Your task to perform on an android device: check google app version Image 0: 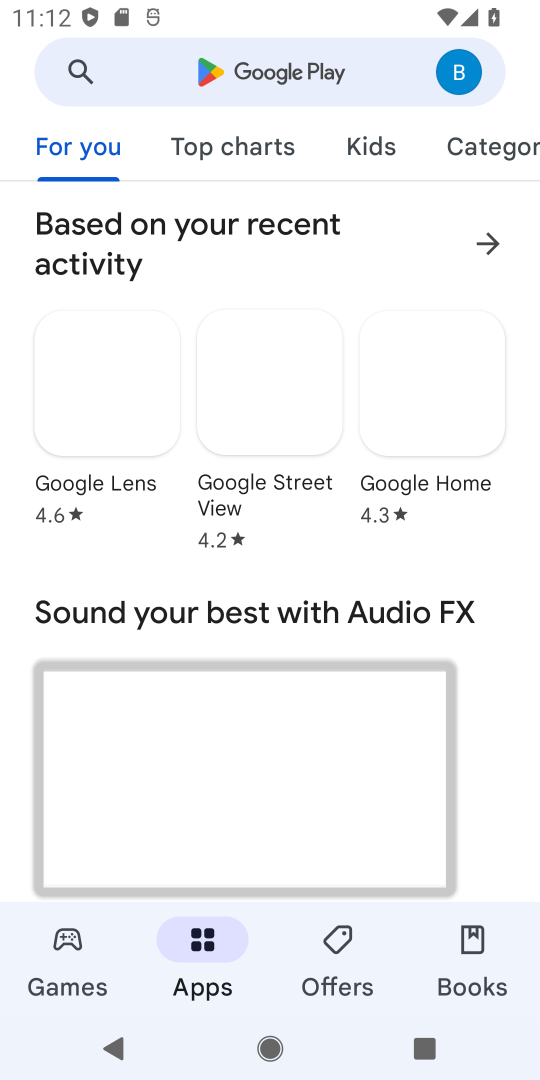
Step 0: press home button
Your task to perform on an android device: check google app version Image 1: 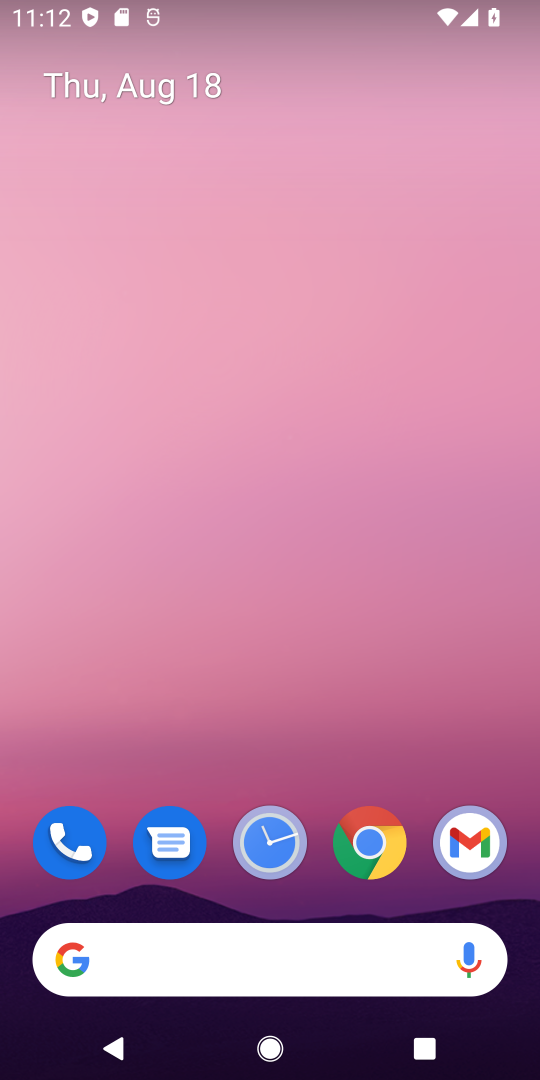
Step 1: drag from (201, 887) to (221, 147)
Your task to perform on an android device: check google app version Image 2: 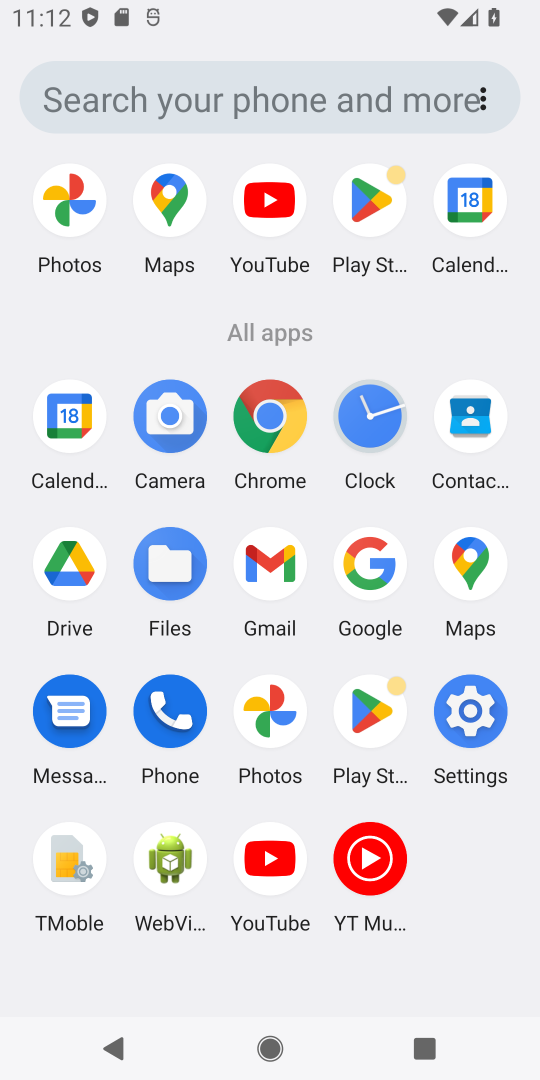
Step 2: click (377, 596)
Your task to perform on an android device: check google app version Image 3: 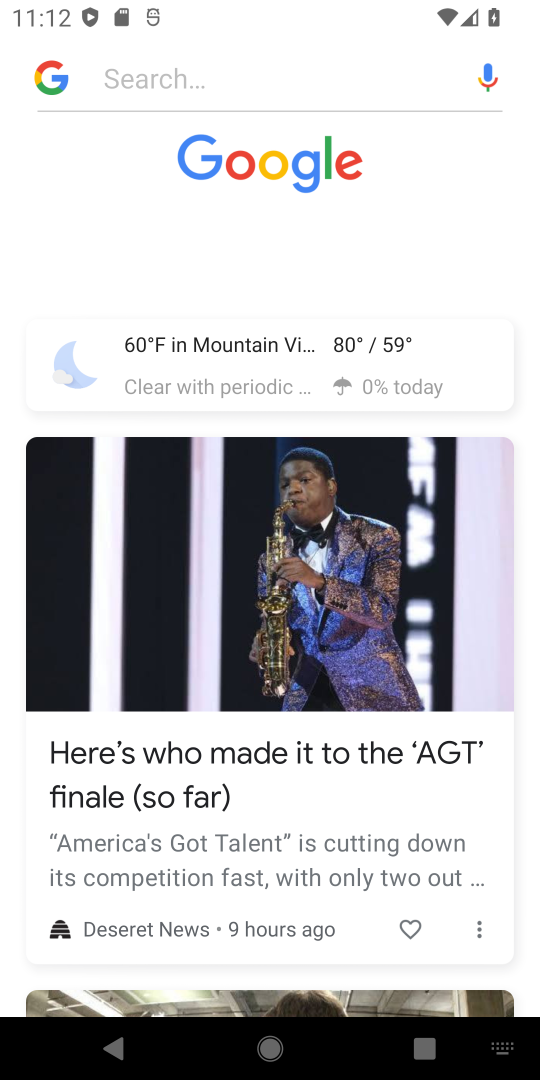
Step 3: click (51, 95)
Your task to perform on an android device: check google app version Image 4: 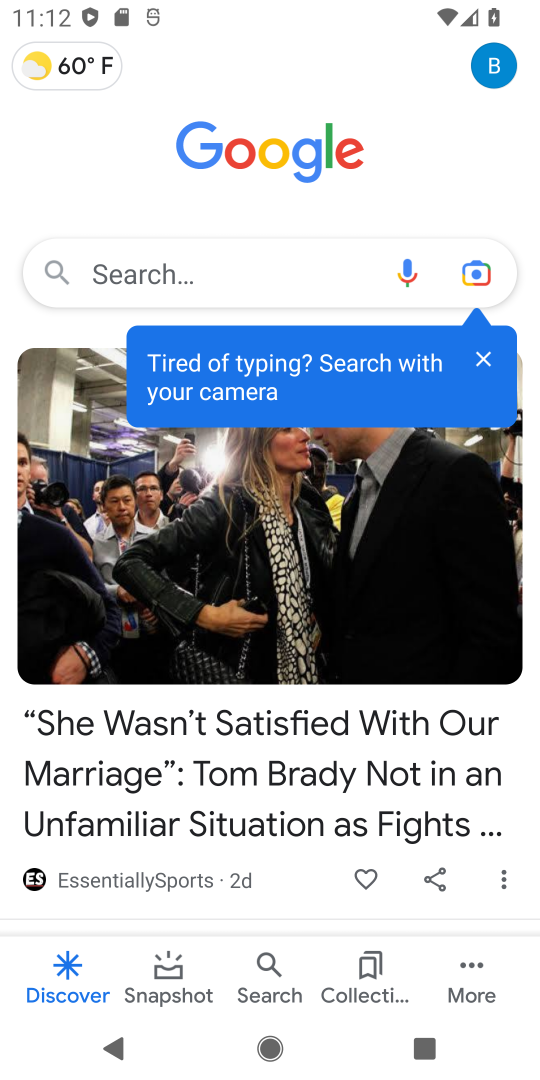
Step 4: click (505, 71)
Your task to perform on an android device: check google app version Image 5: 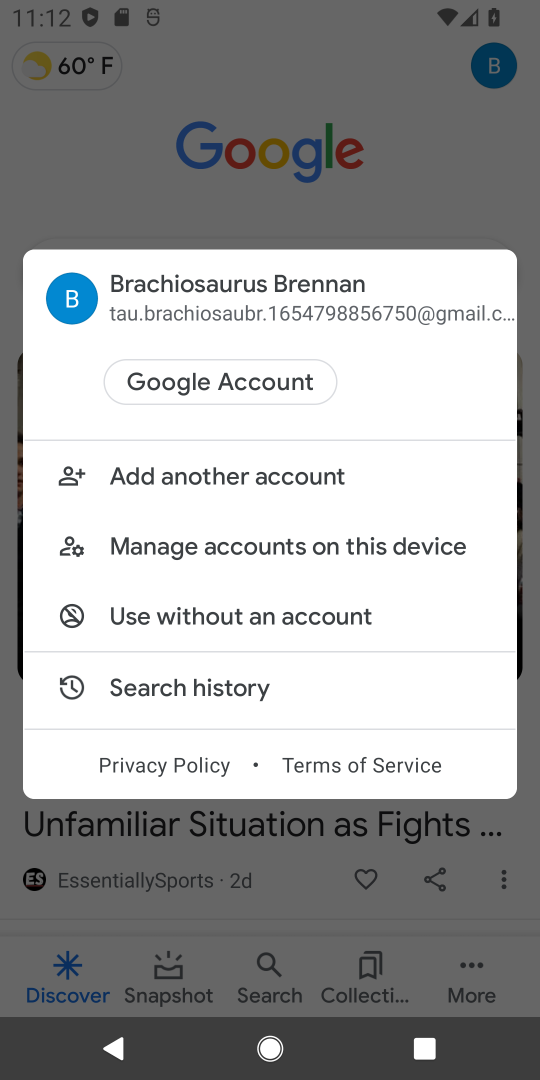
Step 5: click (429, 97)
Your task to perform on an android device: check google app version Image 6: 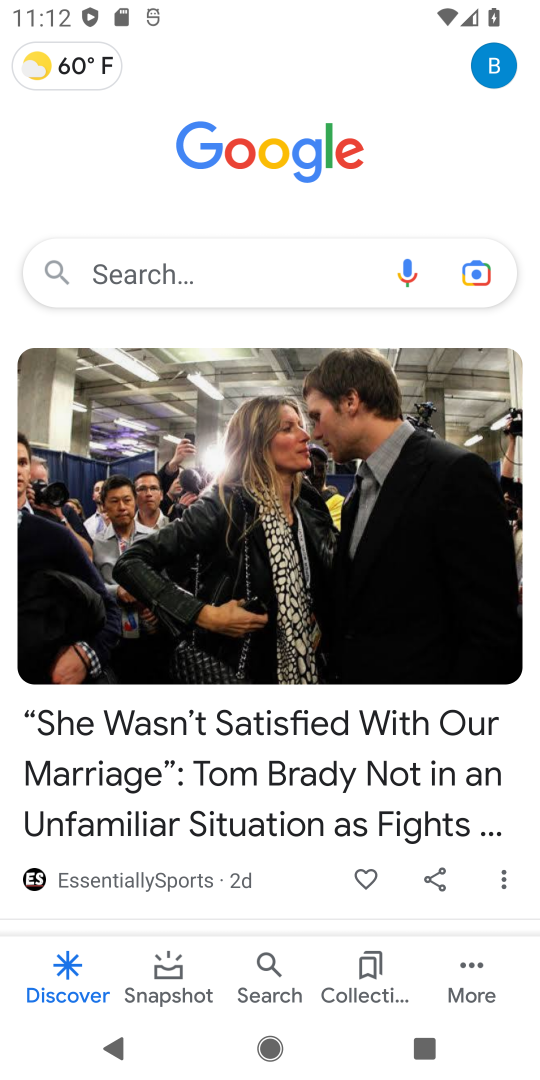
Step 6: click (469, 975)
Your task to perform on an android device: check google app version Image 7: 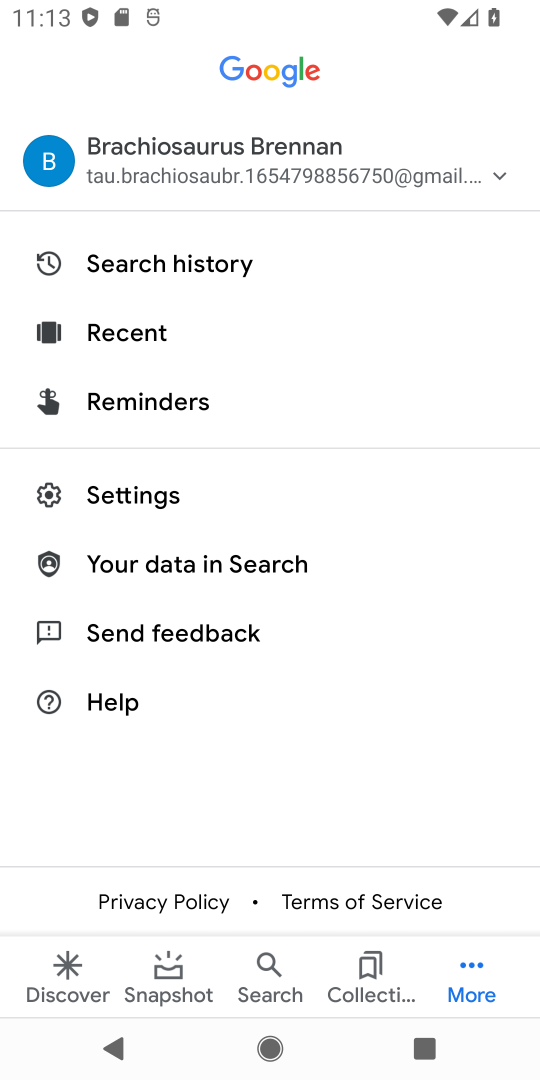
Step 7: click (471, 976)
Your task to perform on an android device: check google app version Image 8: 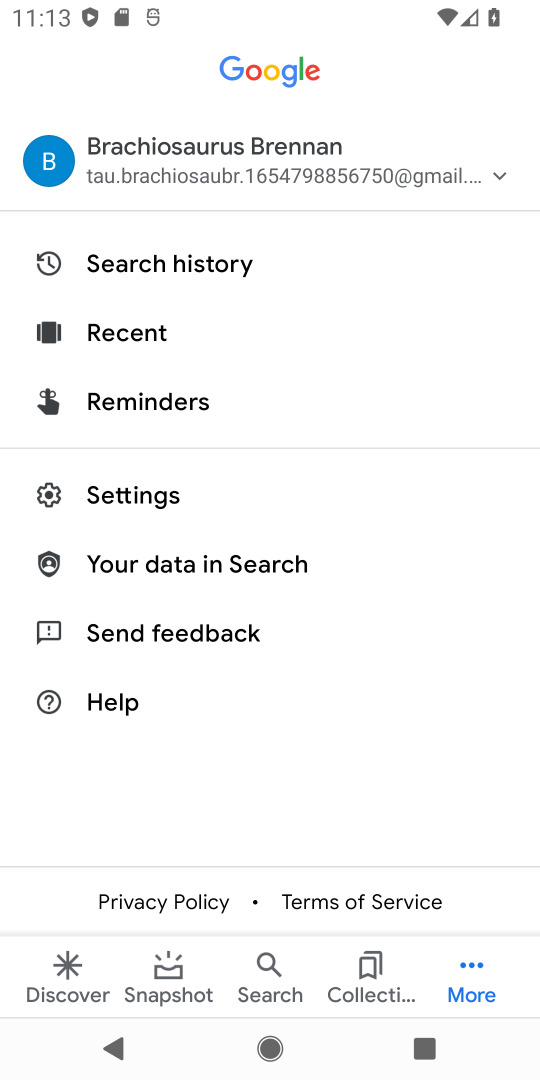
Step 8: click (471, 976)
Your task to perform on an android device: check google app version Image 9: 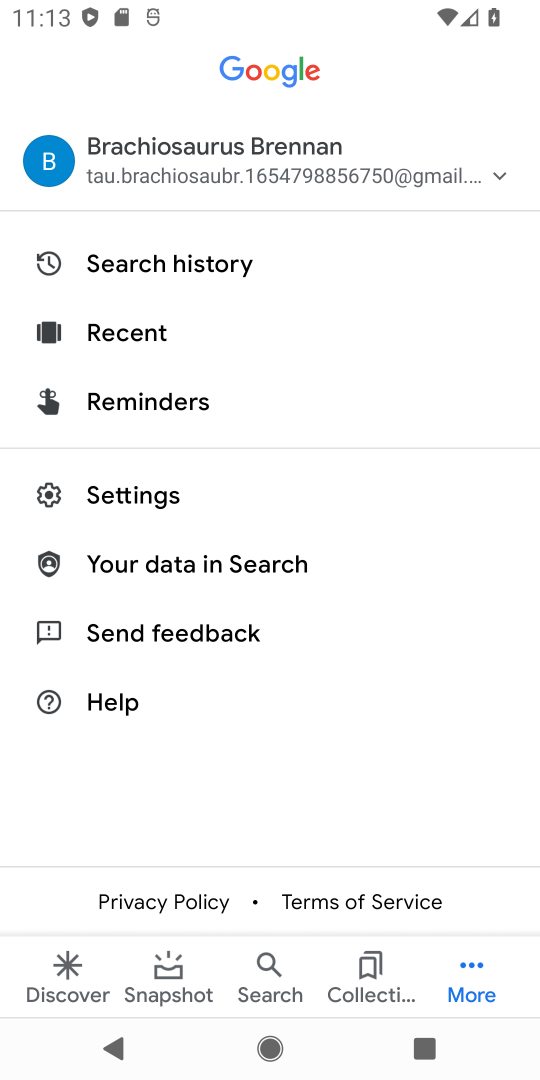
Step 9: click (181, 523)
Your task to perform on an android device: check google app version Image 10: 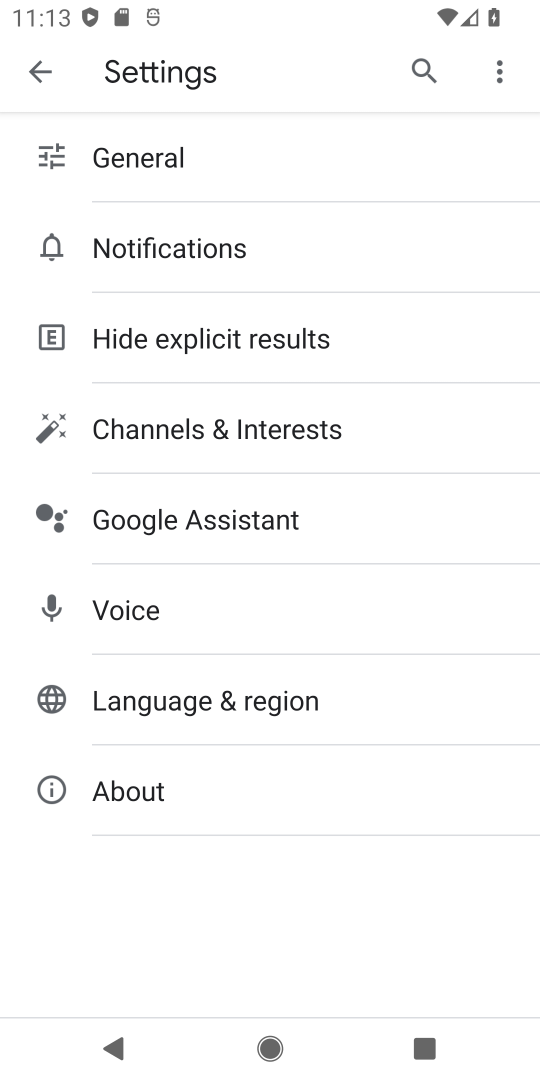
Step 10: click (170, 807)
Your task to perform on an android device: check google app version Image 11: 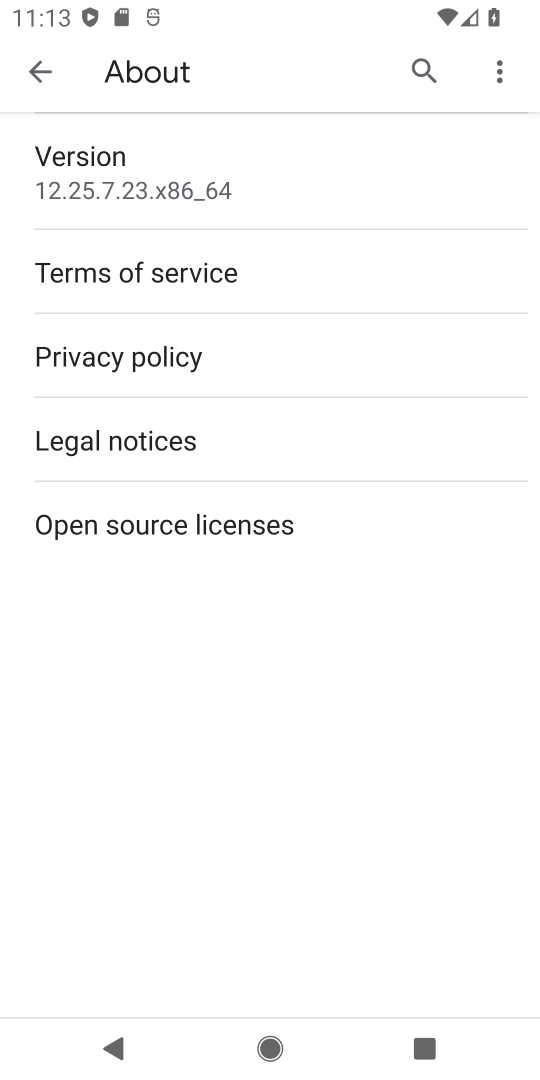
Step 11: task complete